Your task to perform on an android device: Show the shopping cart on amazon. Search for usb-a on amazon, select the first entry, and add it to the cart. Image 0: 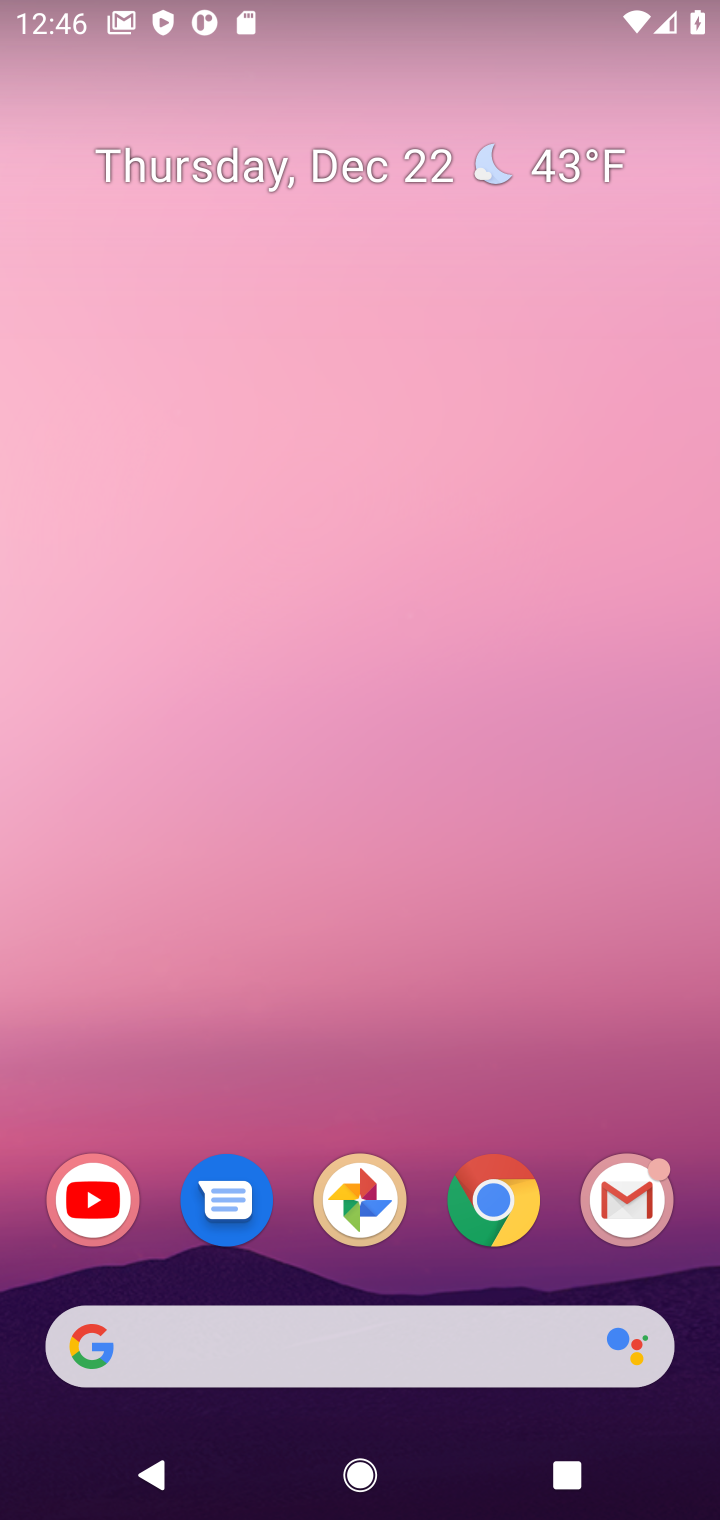
Step 0: click (495, 1207)
Your task to perform on an android device: Show the shopping cart on amazon. Search for usb-a on amazon, select the first entry, and add it to the cart. Image 1: 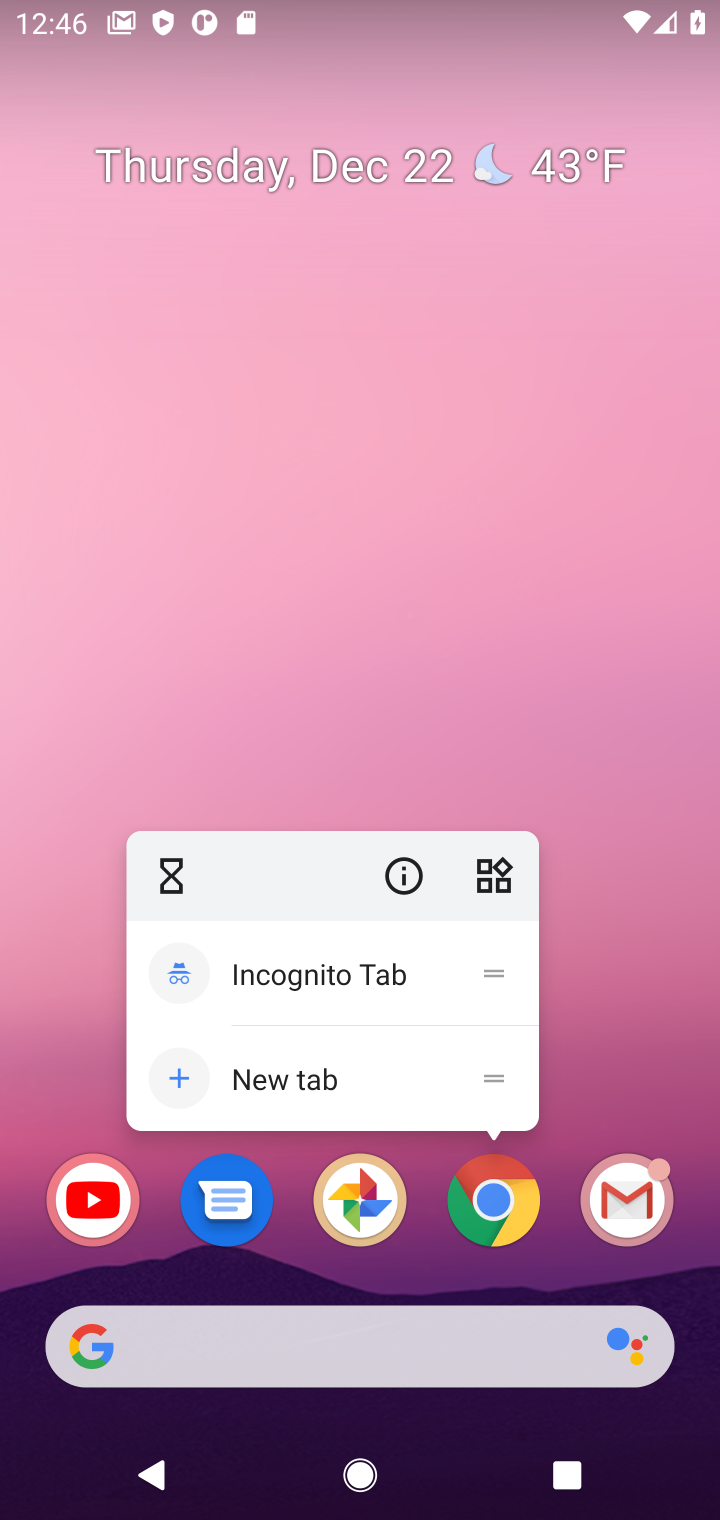
Step 1: click (495, 1207)
Your task to perform on an android device: Show the shopping cart on amazon. Search for usb-a on amazon, select the first entry, and add it to the cart. Image 2: 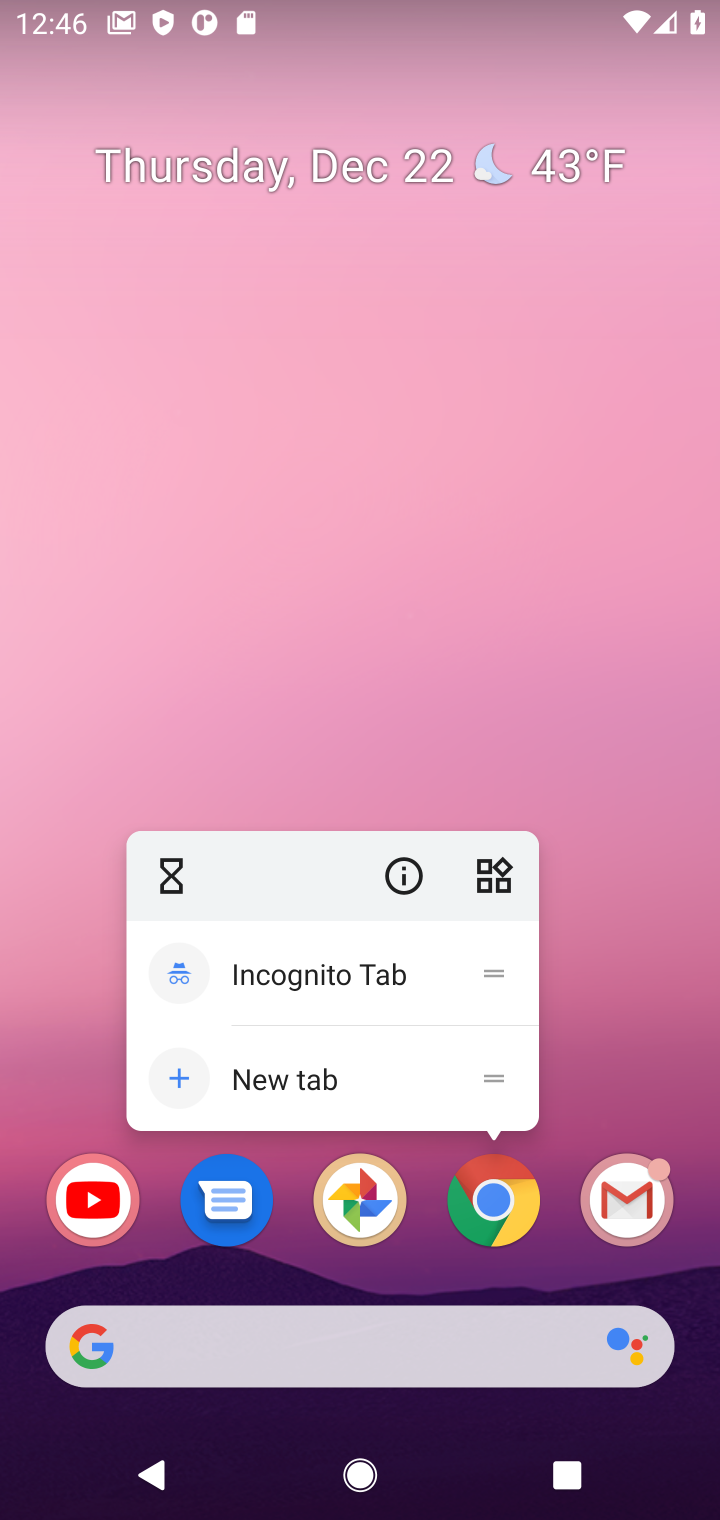
Step 2: click (510, 1219)
Your task to perform on an android device: Show the shopping cart on amazon. Search for usb-a on amazon, select the first entry, and add it to the cart. Image 3: 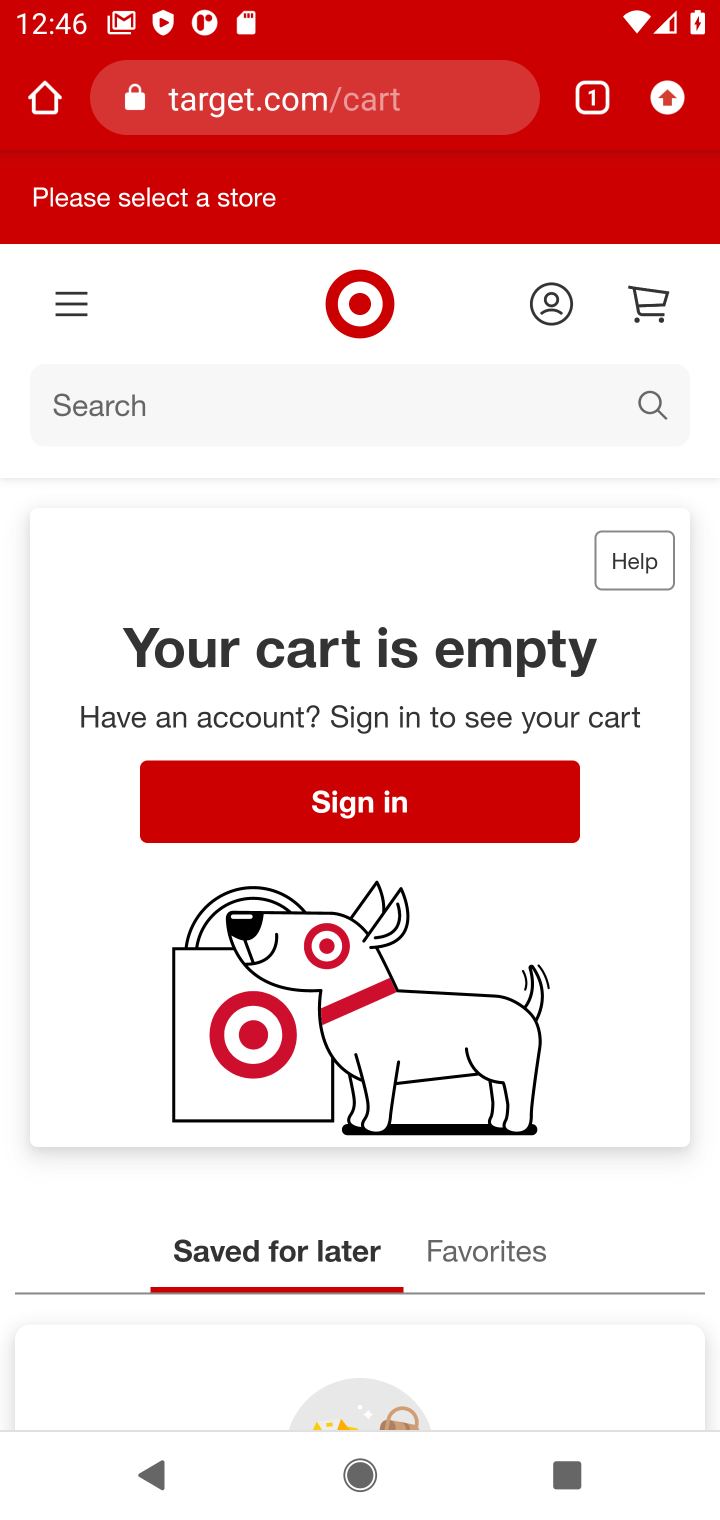
Step 3: click (280, 101)
Your task to perform on an android device: Show the shopping cart on amazon. Search for usb-a on amazon, select the first entry, and add it to the cart. Image 4: 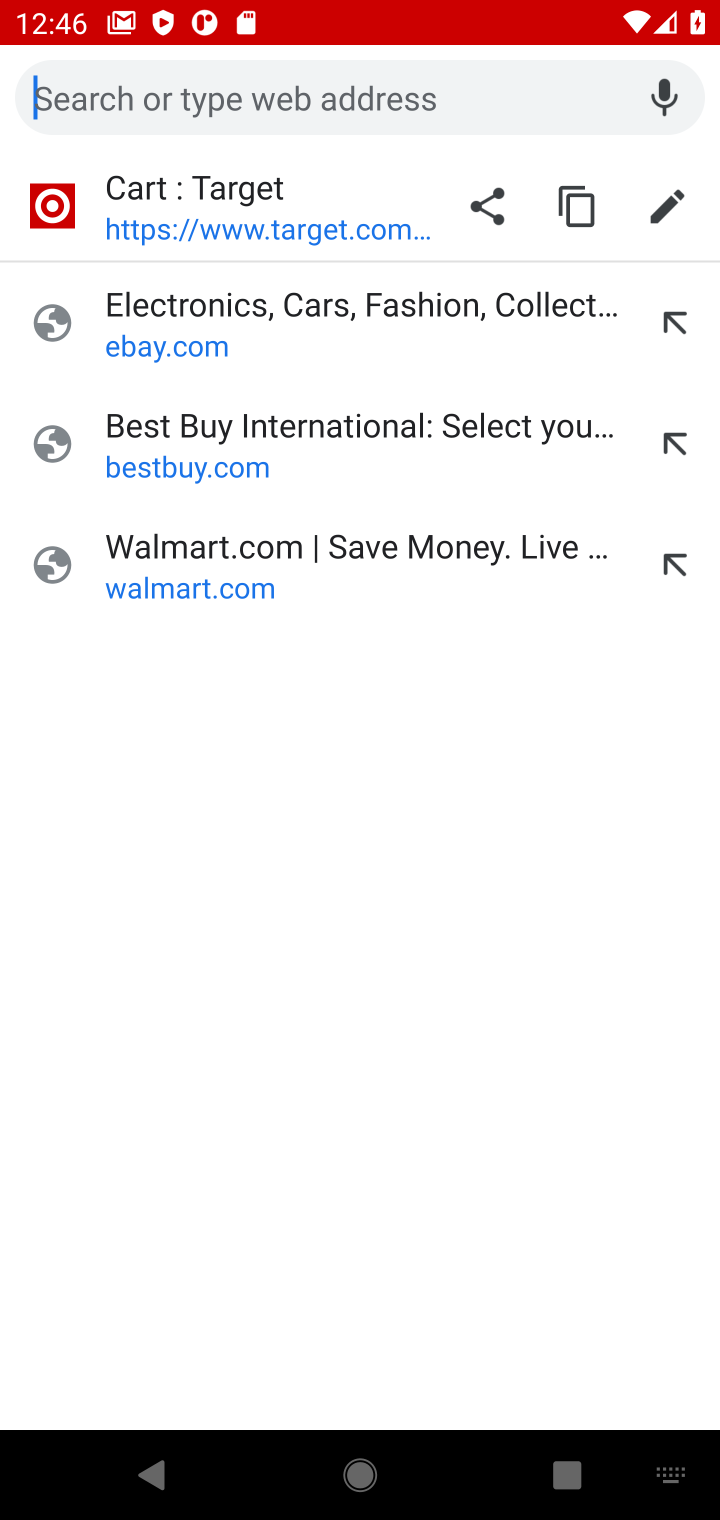
Step 4: type "amazon.com"
Your task to perform on an android device: Show the shopping cart on amazon. Search for usb-a on amazon, select the first entry, and add it to the cart. Image 5: 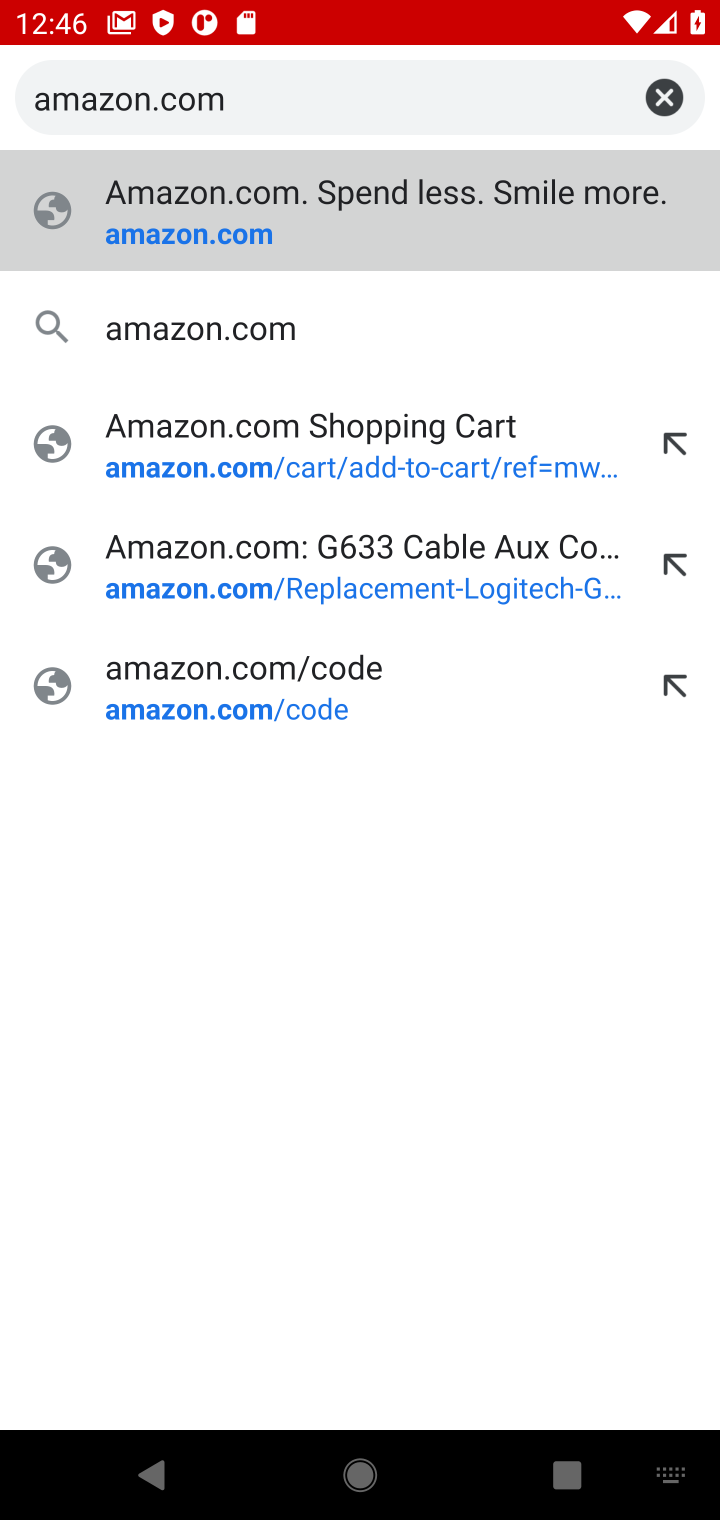
Step 5: click (168, 234)
Your task to perform on an android device: Show the shopping cart on amazon. Search for usb-a on amazon, select the first entry, and add it to the cart. Image 6: 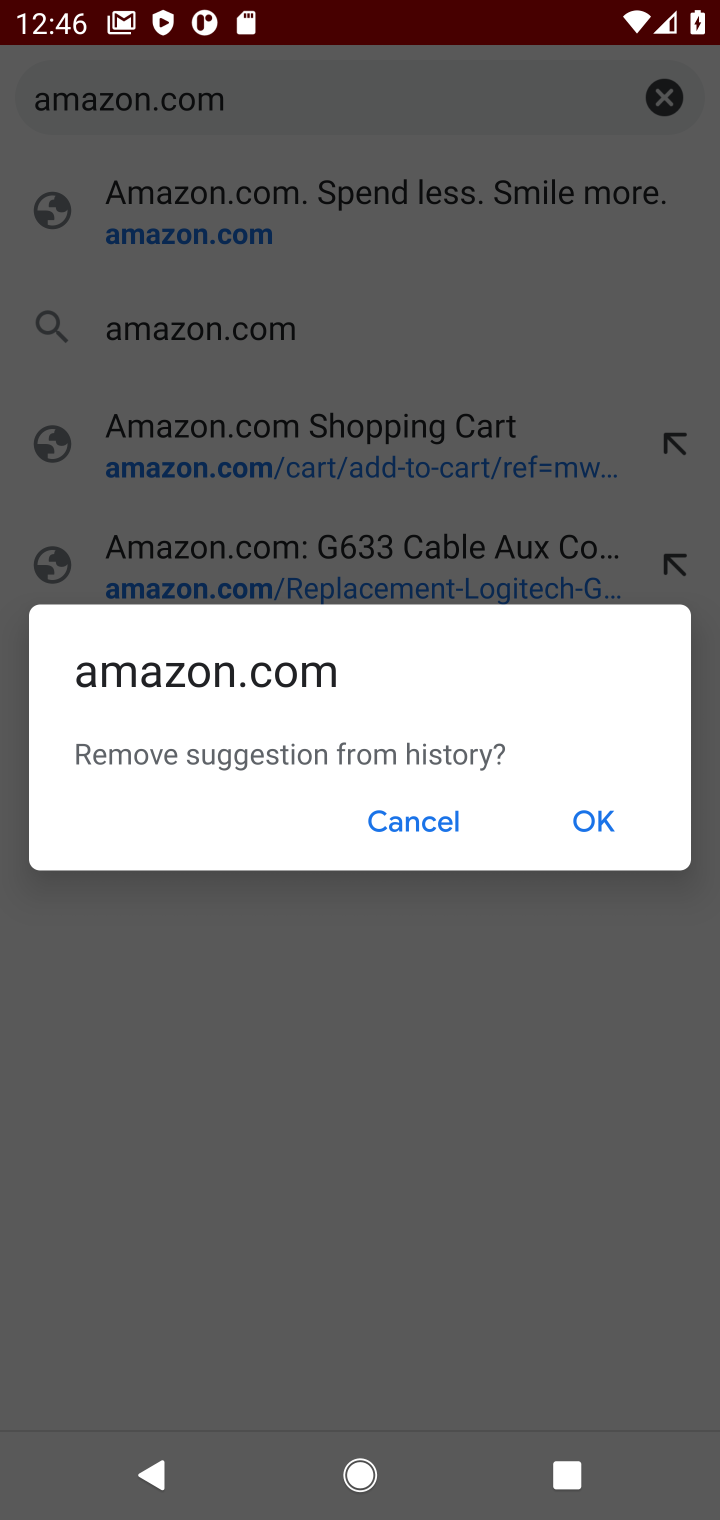
Step 6: click (400, 808)
Your task to perform on an android device: Show the shopping cart on amazon. Search for usb-a on amazon, select the first entry, and add it to the cart. Image 7: 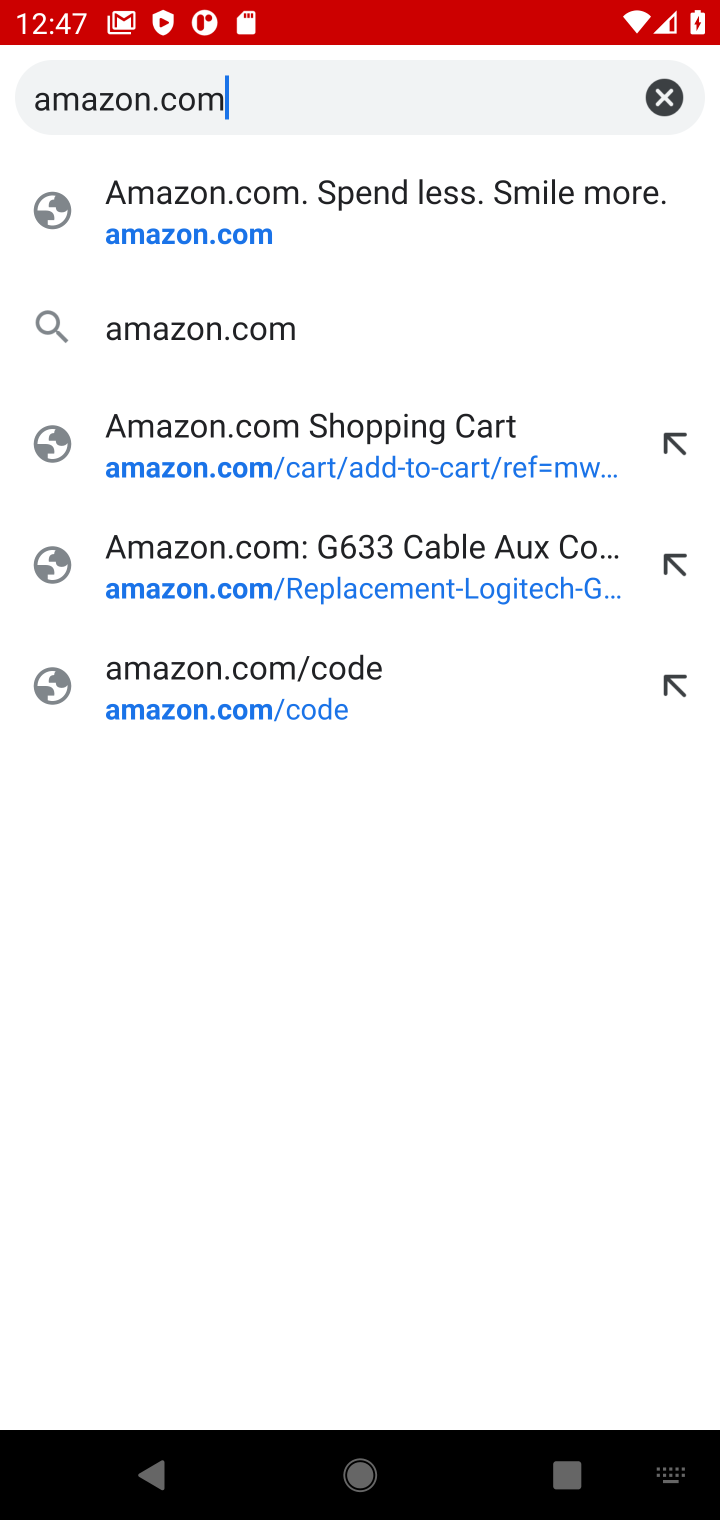
Step 7: click (152, 226)
Your task to perform on an android device: Show the shopping cart on amazon. Search for usb-a on amazon, select the first entry, and add it to the cart. Image 8: 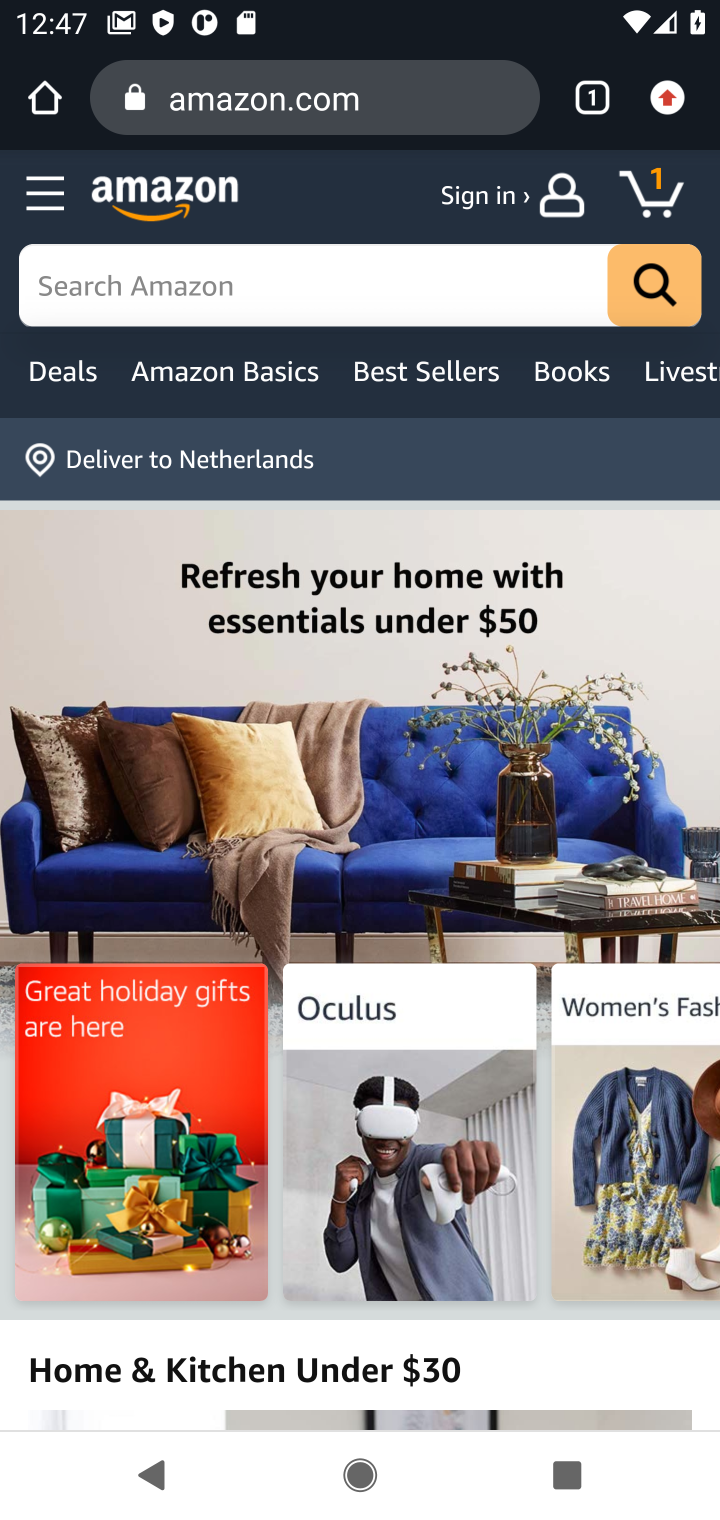
Step 8: click (655, 200)
Your task to perform on an android device: Show the shopping cart on amazon. Search for usb-a on amazon, select the first entry, and add it to the cart. Image 9: 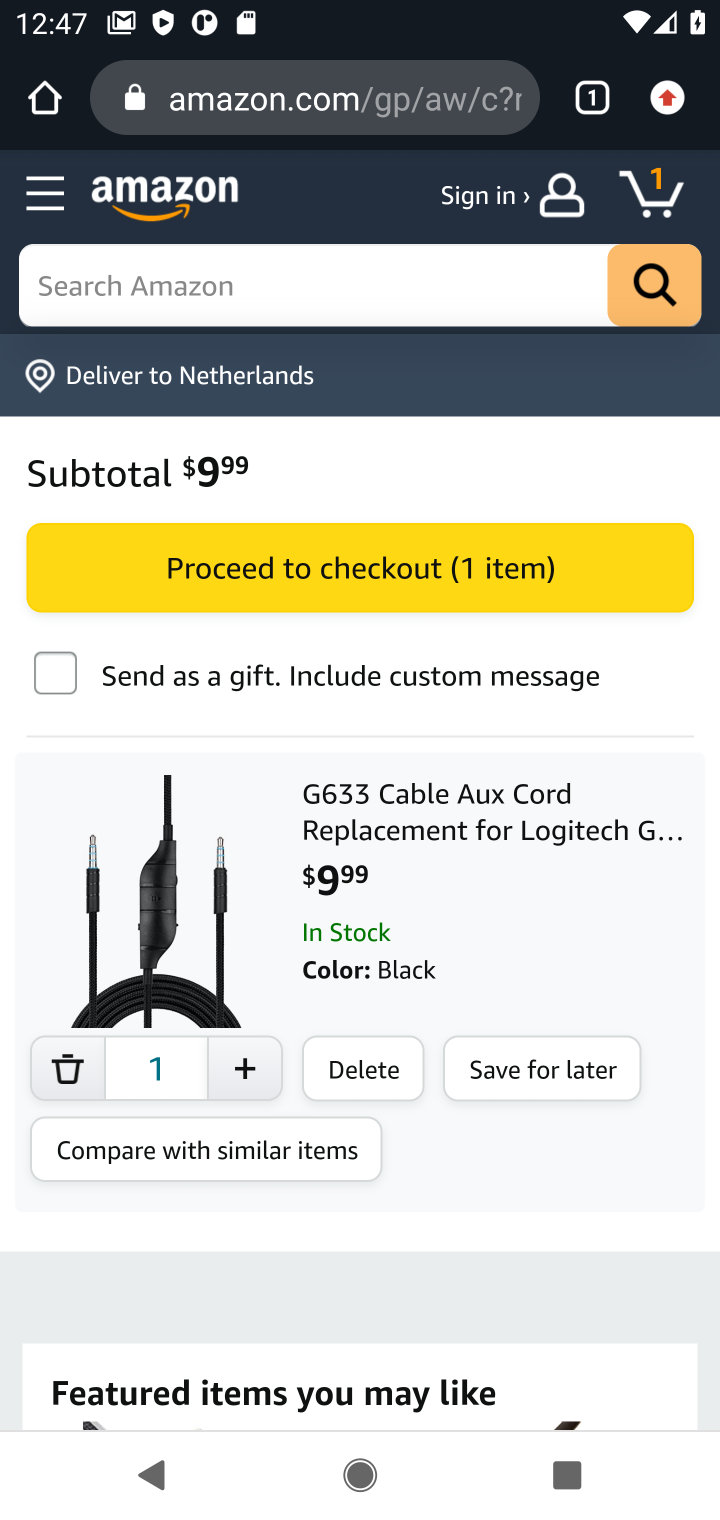
Step 9: click (159, 288)
Your task to perform on an android device: Show the shopping cart on amazon. Search for usb-a on amazon, select the first entry, and add it to the cart. Image 10: 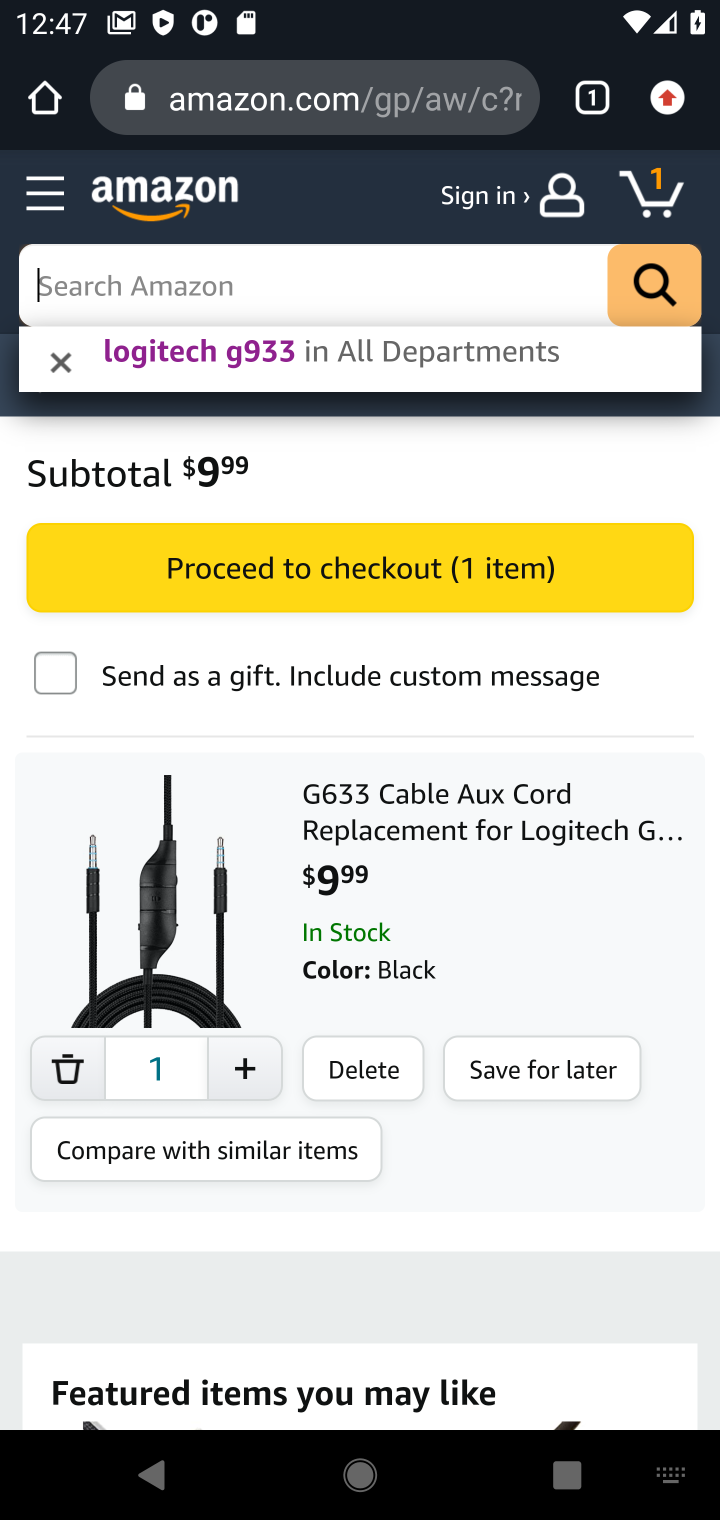
Step 10: type "usb-a"
Your task to perform on an android device: Show the shopping cart on amazon. Search for usb-a on amazon, select the first entry, and add it to the cart. Image 11: 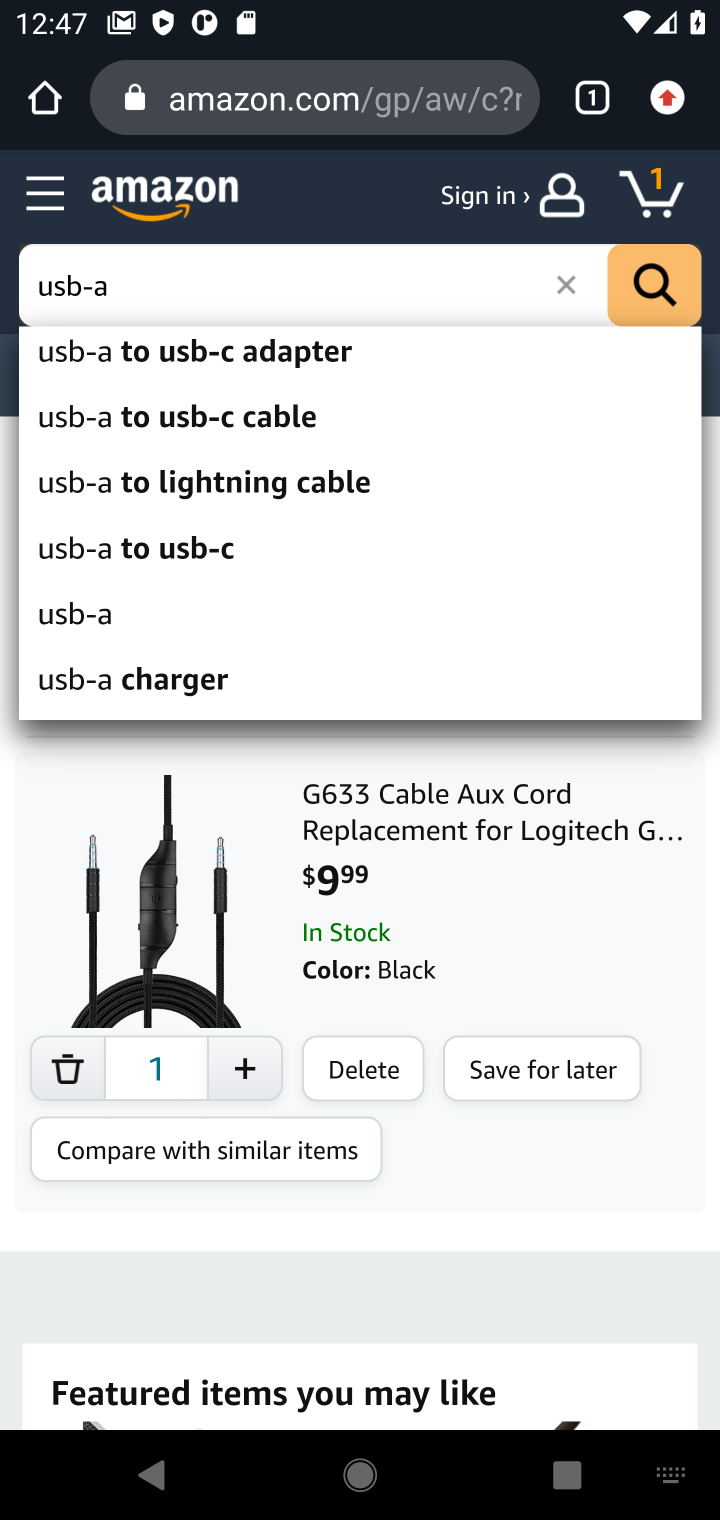
Step 11: click (65, 614)
Your task to perform on an android device: Show the shopping cart on amazon. Search for usb-a on amazon, select the first entry, and add it to the cart. Image 12: 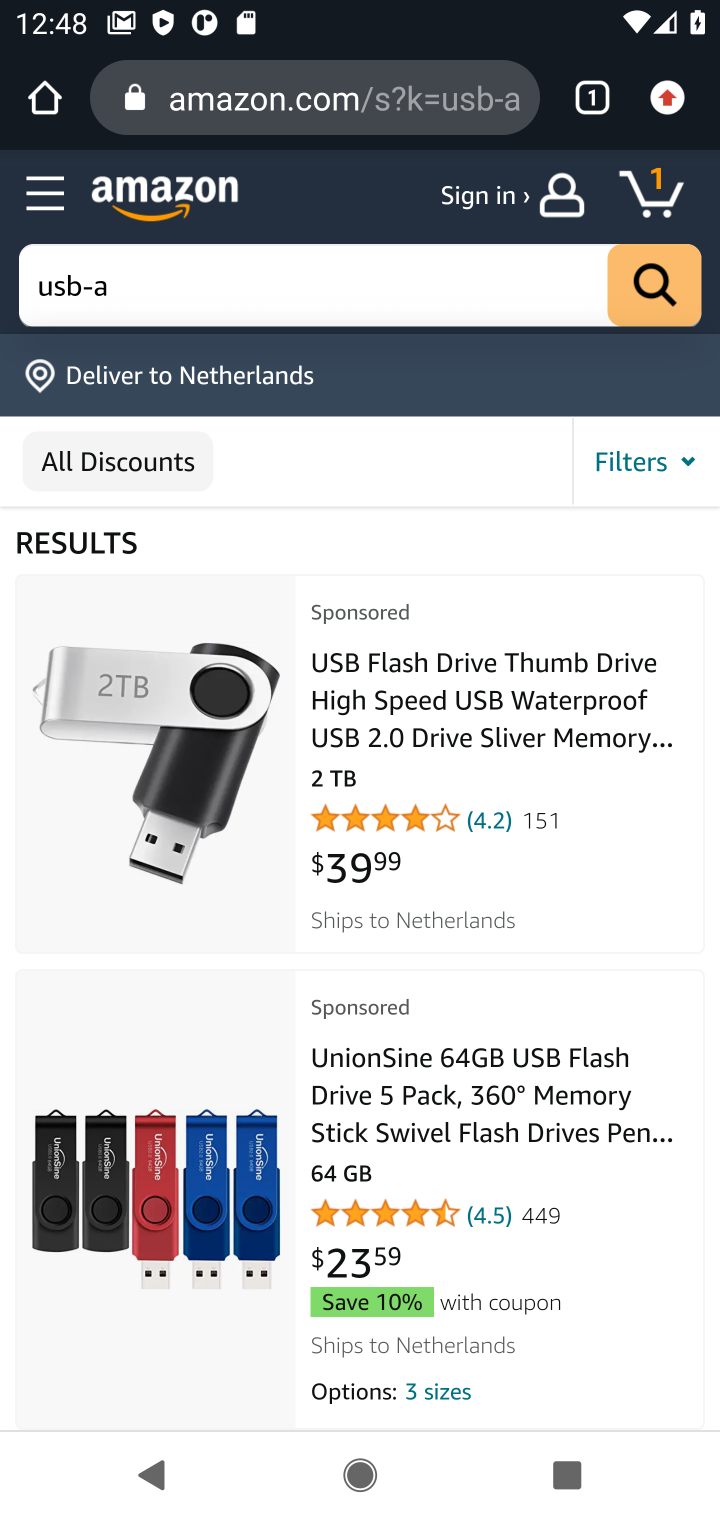
Step 12: click (428, 737)
Your task to perform on an android device: Show the shopping cart on amazon. Search for usb-a on amazon, select the first entry, and add it to the cart. Image 13: 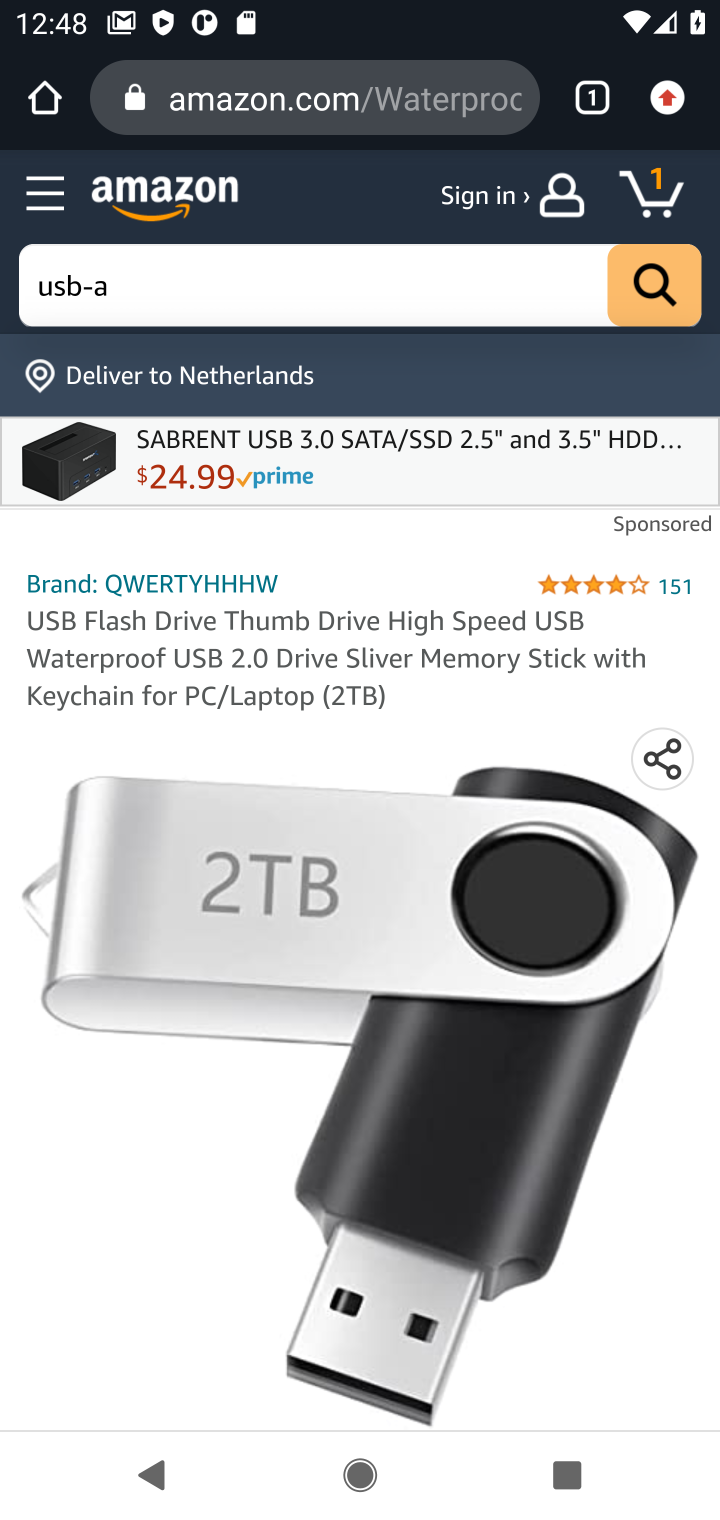
Step 13: task complete